Your task to perform on an android device: change the clock style Image 0: 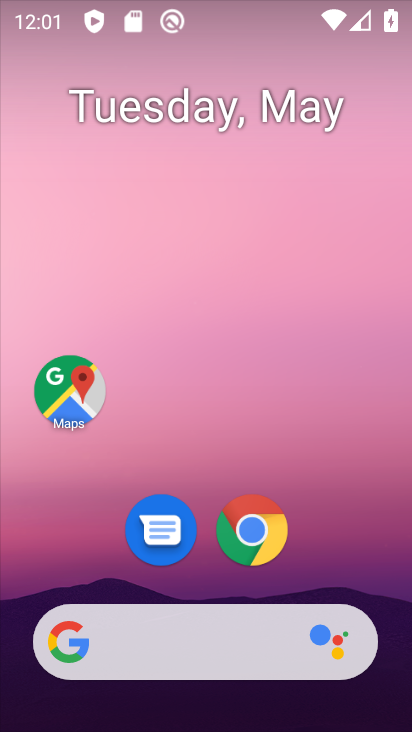
Step 0: drag from (355, 540) to (277, 63)
Your task to perform on an android device: change the clock style Image 1: 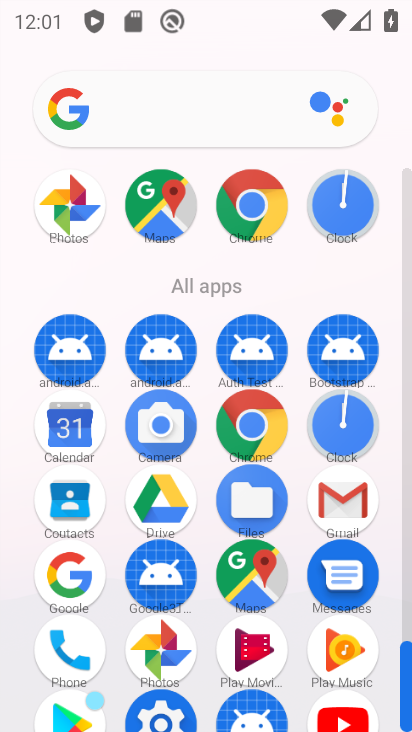
Step 1: drag from (8, 609) to (19, 242)
Your task to perform on an android device: change the clock style Image 2: 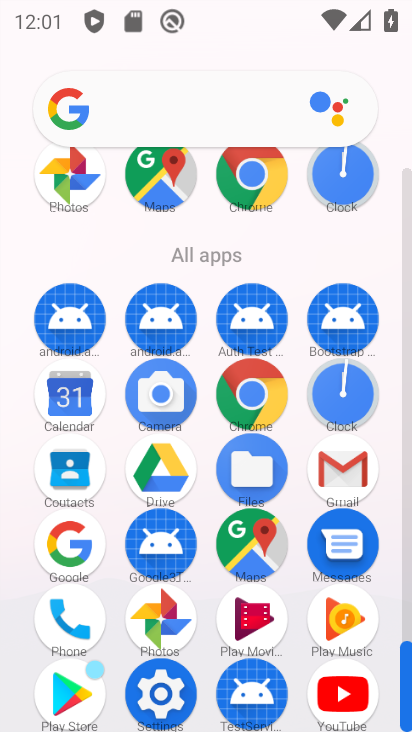
Step 2: click (337, 390)
Your task to perform on an android device: change the clock style Image 3: 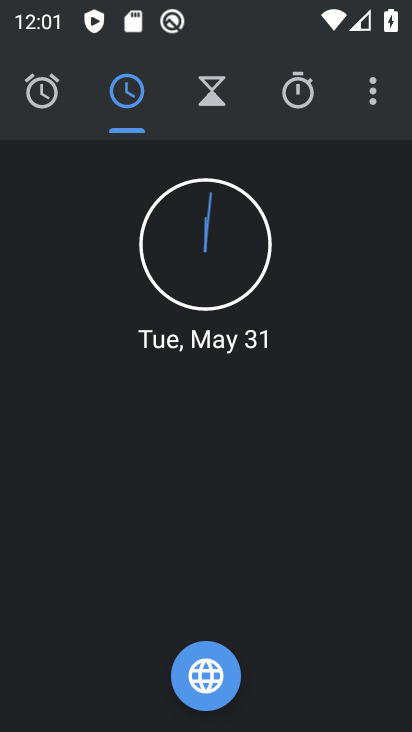
Step 3: drag from (373, 94) to (277, 167)
Your task to perform on an android device: change the clock style Image 4: 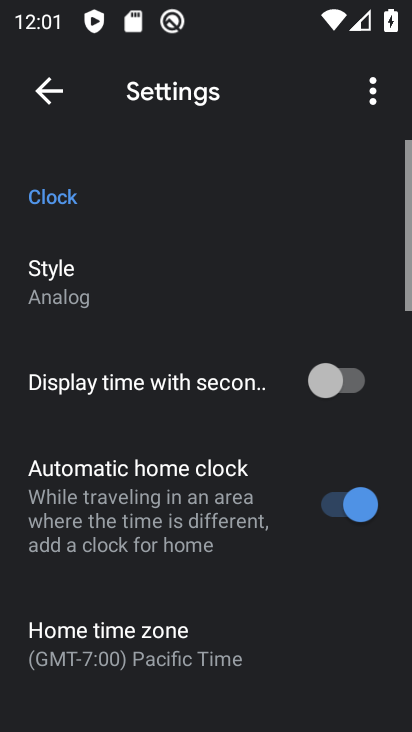
Step 4: click (132, 281)
Your task to perform on an android device: change the clock style Image 5: 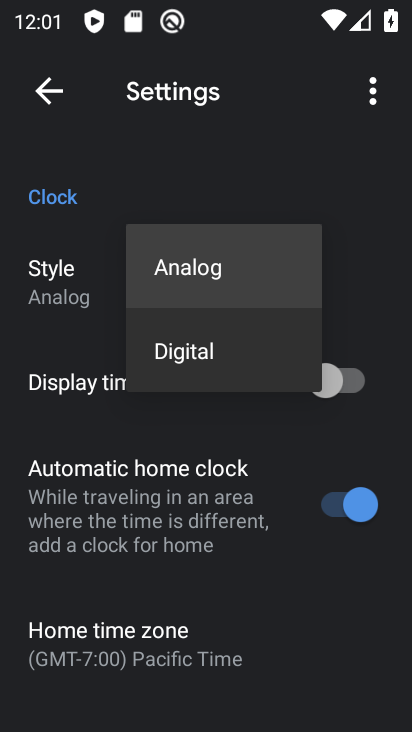
Step 5: click (198, 319)
Your task to perform on an android device: change the clock style Image 6: 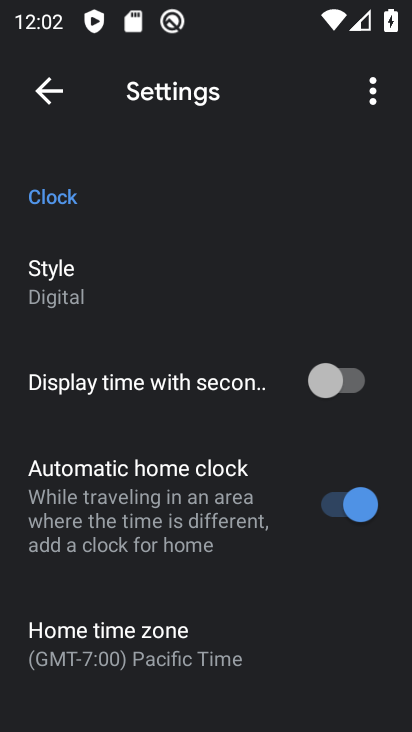
Step 6: task complete